Your task to perform on an android device: read, delete, or share a saved page in the chrome app Image 0: 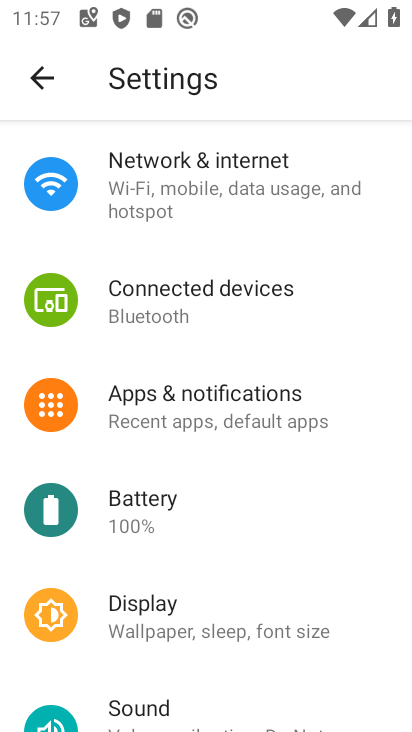
Step 0: press home button
Your task to perform on an android device: read, delete, or share a saved page in the chrome app Image 1: 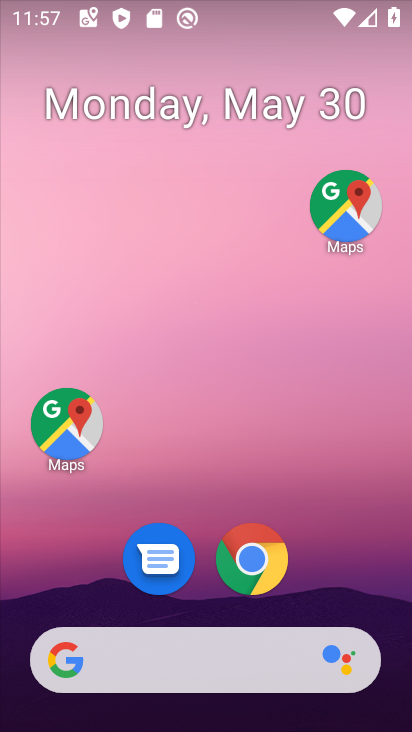
Step 1: click (251, 558)
Your task to perform on an android device: read, delete, or share a saved page in the chrome app Image 2: 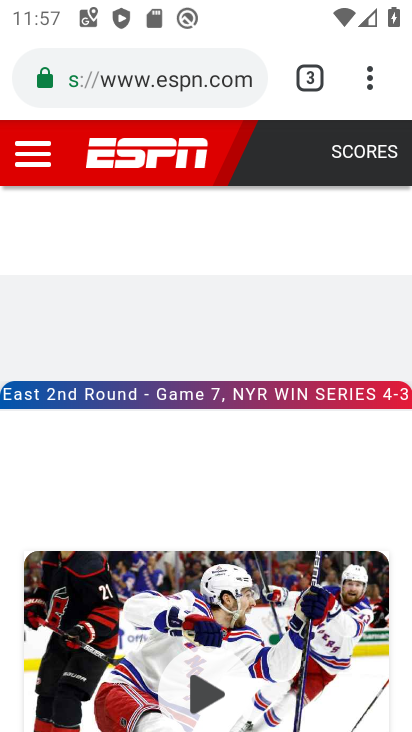
Step 2: task complete